Your task to perform on an android device: turn on priority inbox in the gmail app Image 0: 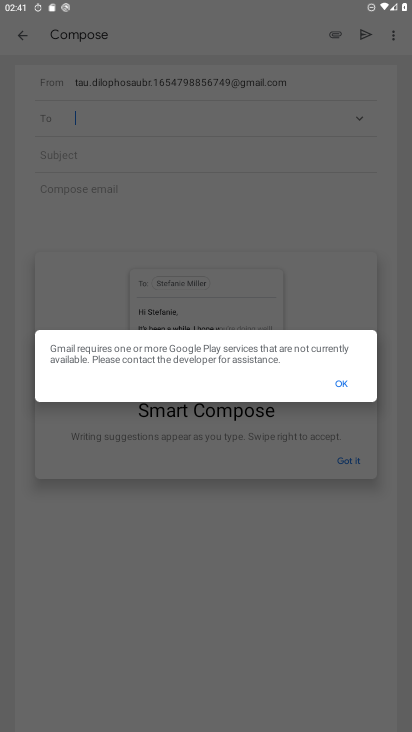
Step 0: press home button
Your task to perform on an android device: turn on priority inbox in the gmail app Image 1: 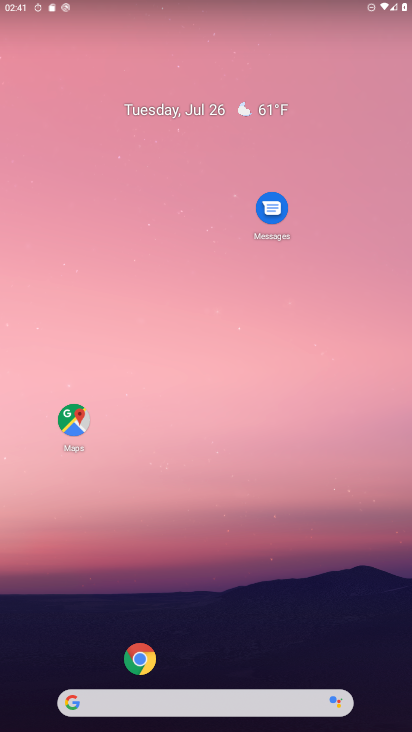
Step 1: drag from (130, 601) to (363, 238)
Your task to perform on an android device: turn on priority inbox in the gmail app Image 2: 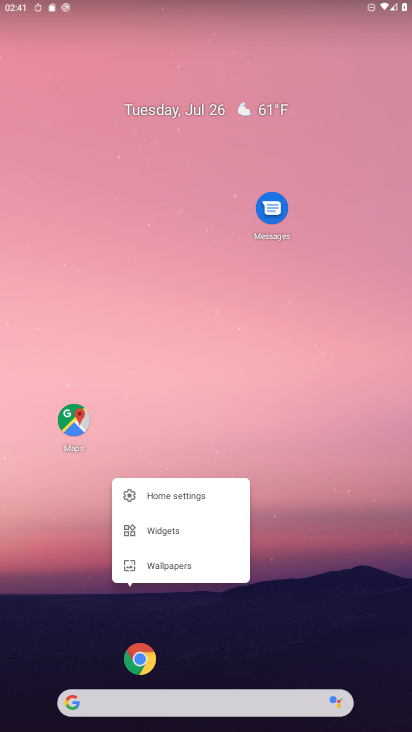
Step 2: drag from (31, 699) to (215, 234)
Your task to perform on an android device: turn on priority inbox in the gmail app Image 3: 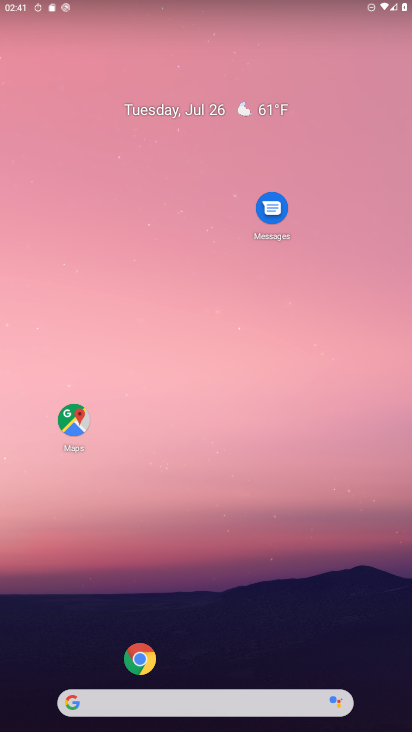
Step 3: drag from (29, 683) to (177, 315)
Your task to perform on an android device: turn on priority inbox in the gmail app Image 4: 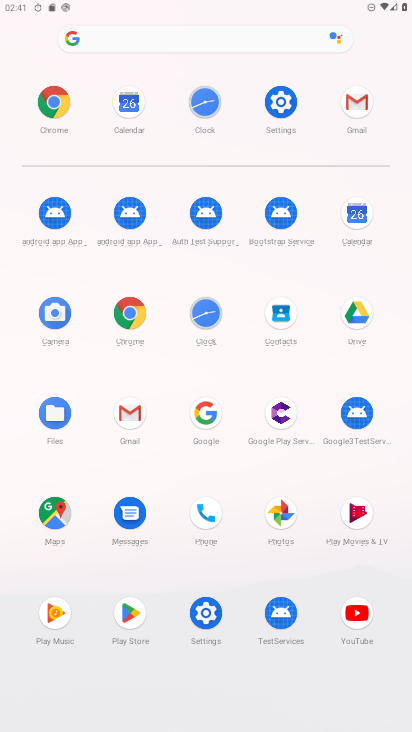
Step 4: click (133, 418)
Your task to perform on an android device: turn on priority inbox in the gmail app Image 5: 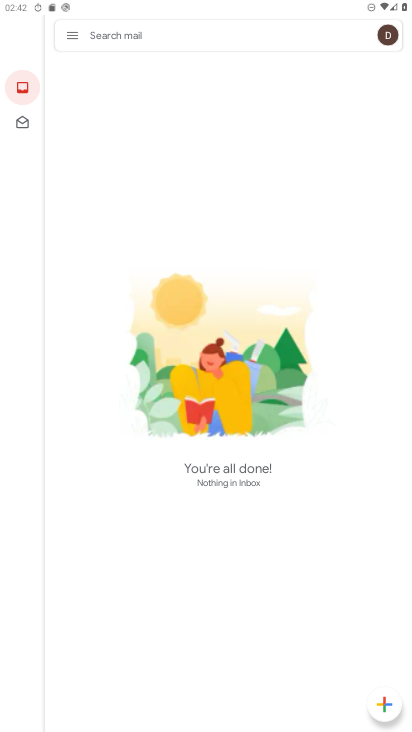
Step 5: click (57, 38)
Your task to perform on an android device: turn on priority inbox in the gmail app Image 6: 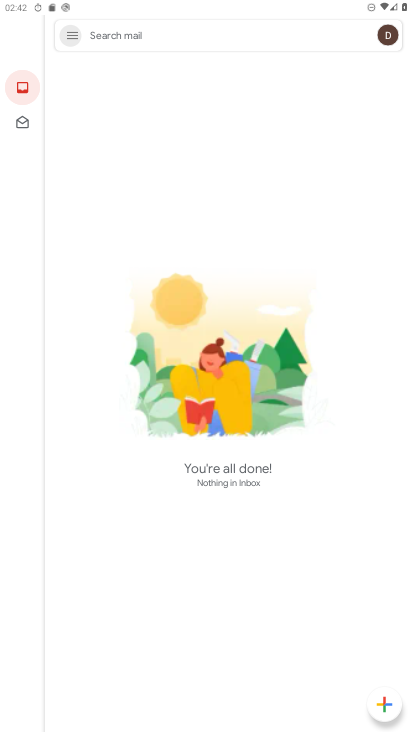
Step 6: click (71, 38)
Your task to perform on an android device: turn on priority inbox in the gmail app Image 7: 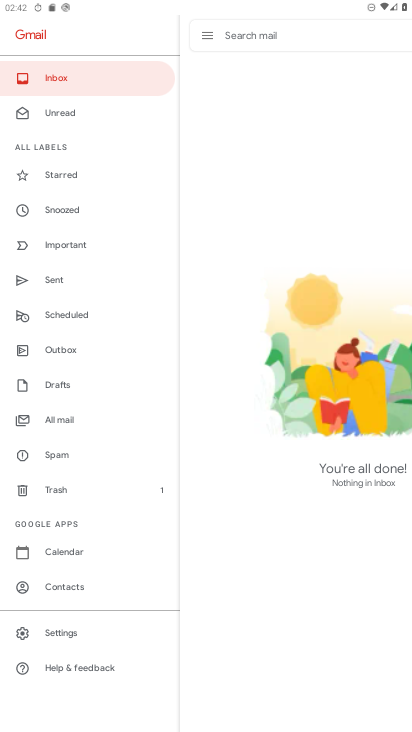
Step 7: click (69, 637)
Your task to perform on an android device: turn on priority inbox in the gmail app Image 8: 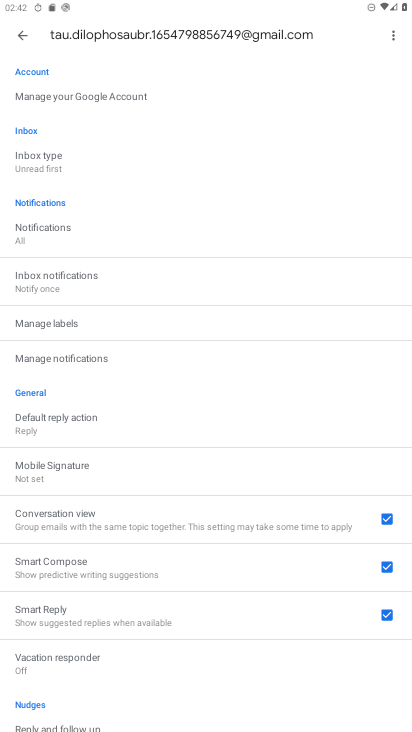
Step 8: click (54, 167)
Your task to perform on an android device: turn on priority inbox in the gmail app Image 9: 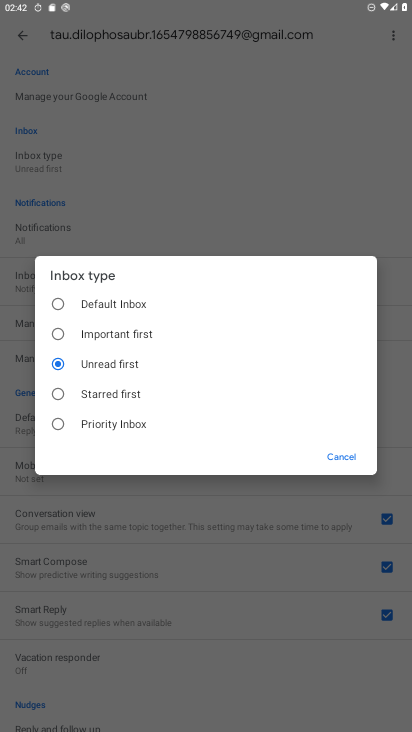
Step 9: click (60, 421)
Your task to perform on an android device: turn on priority inbox in the gmail app Image 10: 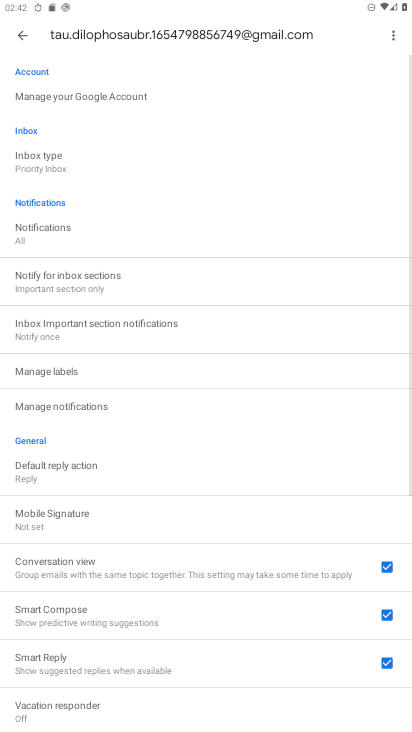
Step 10: task complete